Your task to perform on an android device: open a new tab in the chrome app Image 0: 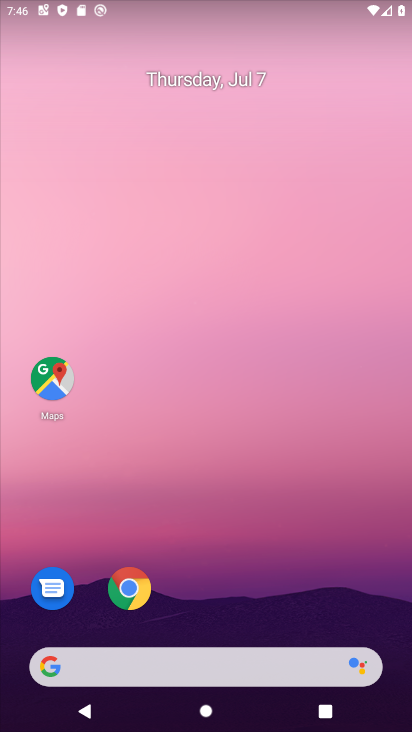
Step 0: drag from (244, 522) to (286, 38)
Your task to perform on an android device: open a new tab in the chrome app Image 1: 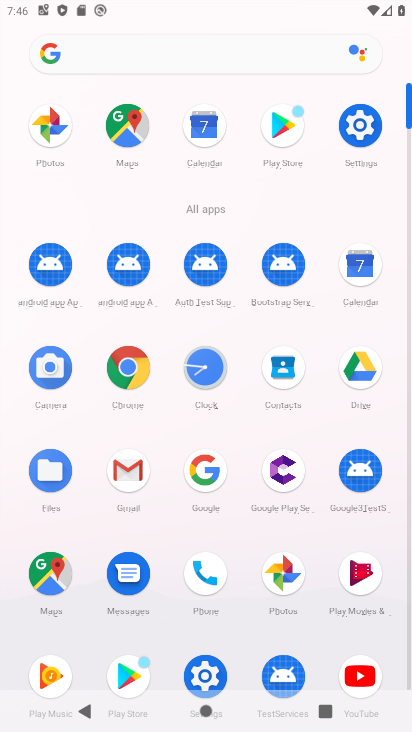
Step 1: click (125, 382)
Your task to perform on an android device: open a new tab in the chrome app Image 2: 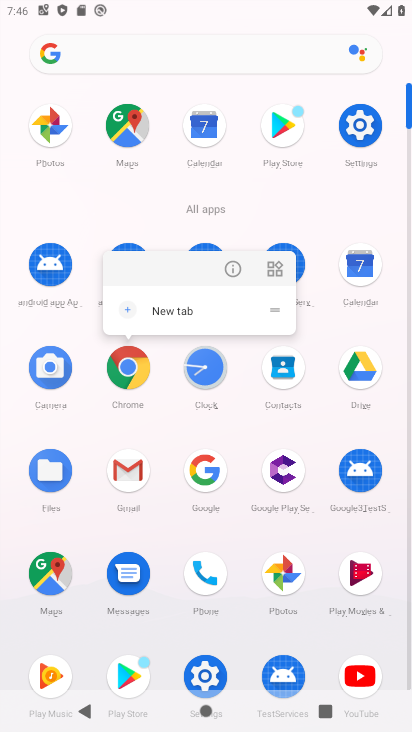
Step 2: click (231, 270)
Your task to perform on an android device: open a new tab in the chrome app Image 3: 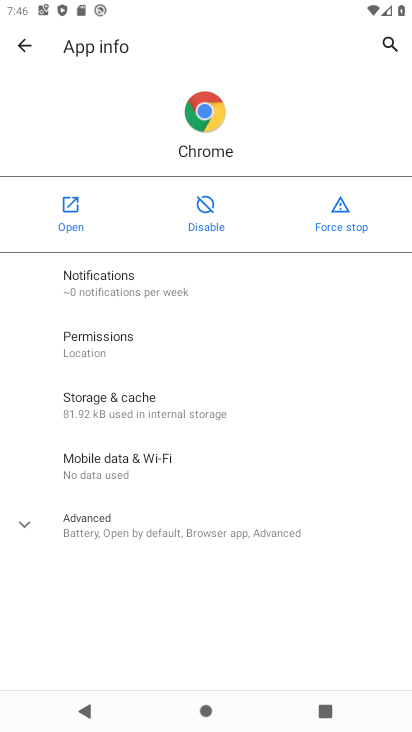
Step 3: click (60, 221)
Your task to perform on an android device: open a new tab in the chrome app Image 4: 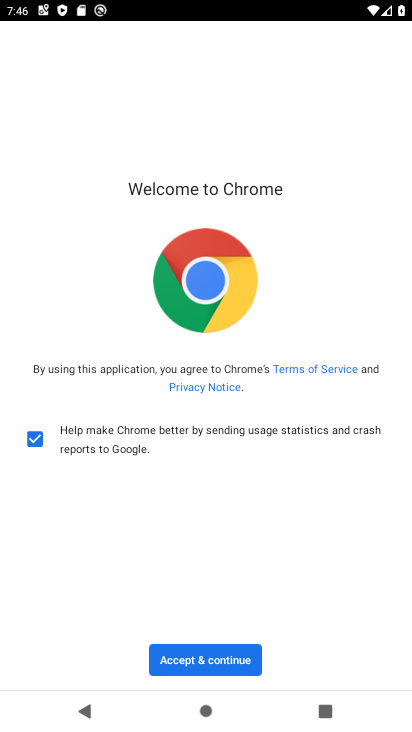
Step 4: click (198, 650)
Your task to perform on an android device: open a new tab in the chrome app Image 5: 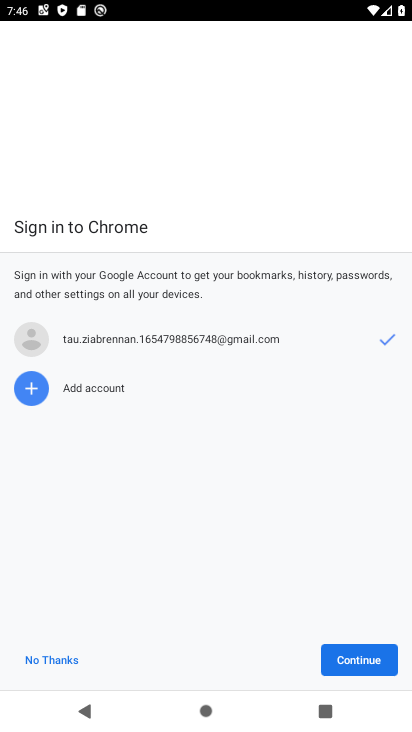
Step 5: click (30, 667)
Your task to perform on an android device: open a new tab in the chrome app Image 6: 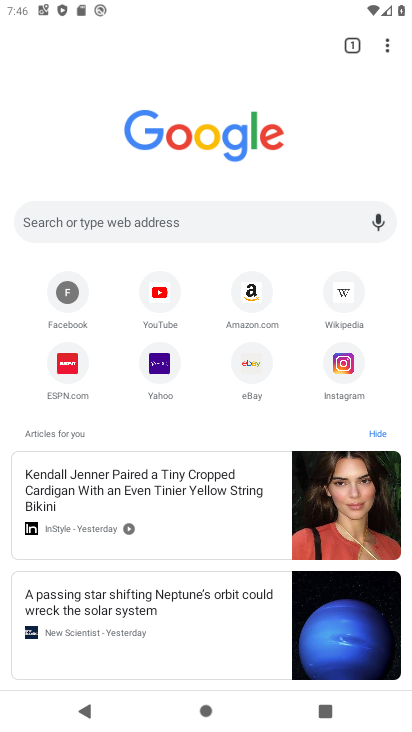
Step 6: click (385, 47)
Your task to perform on an android device: open a new tab in the chrome app Image 7: 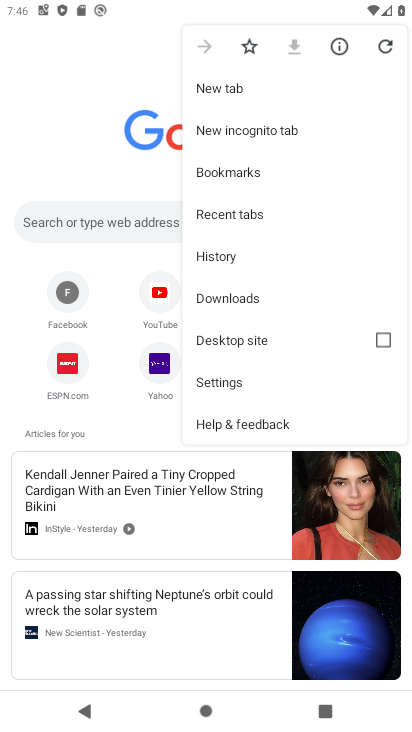
Step 7: click (232, 82)
Your task to perform on an android device: open a new tab in the chrome app Image 8: 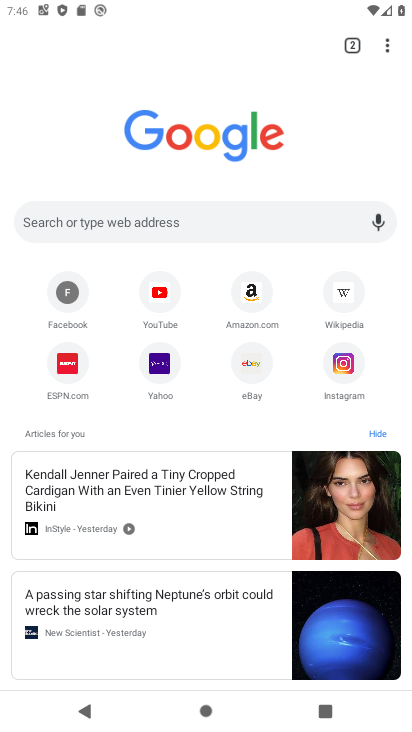
Step 8: task complete